Your task to perform on an android device: toggle pop-ups in chrome Image 0: 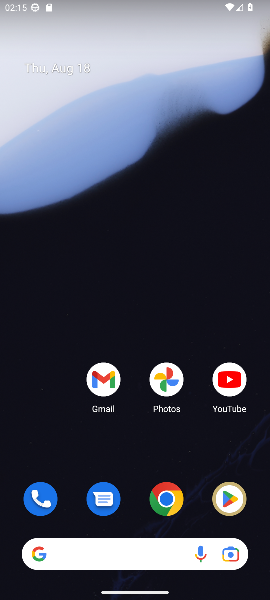
Step 0: click (170, 500)
Your task to perform on an android device: toggle pop-ups in chrome Image 1: 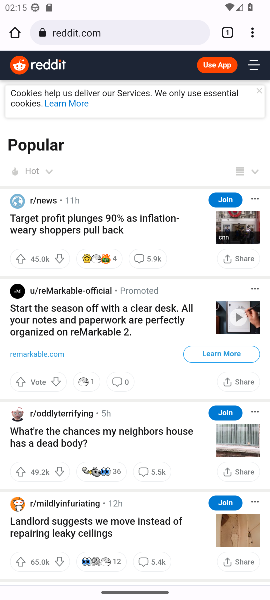
Step 1: click (251, 27)
Your task to perform on an android device: toggle pop-ups in chrome Image 2: 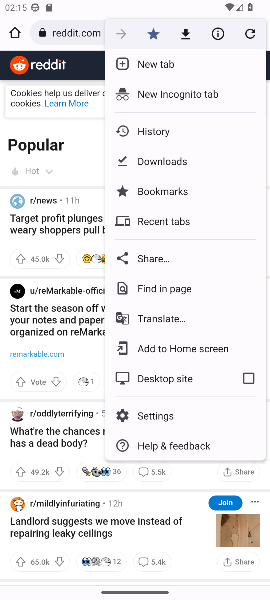
Step 2: click (158, 416)
Your task to perform on an android device: toggle pop-ups in chrome Image 3: 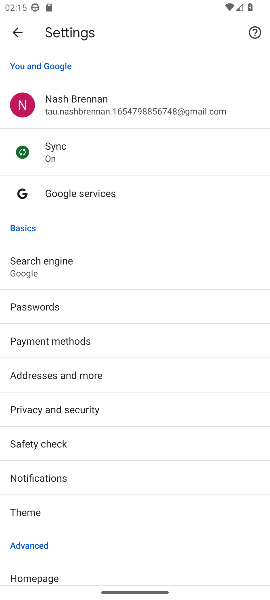
Step 3: drag from (153, 485) to (138, 261)
Your task to perform on an android device: toggle pop-ups in chrome Image 4: 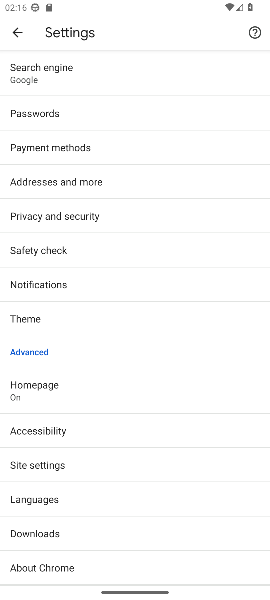
Step 4: click (36, 468)
Your task to perform on an android device: toggle pop-ups in chrome Image 5: 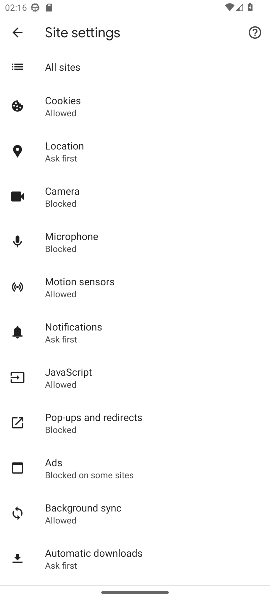
Step 5: click (84, 420)
Your task to perform on an android device: toggle pop-ups in chrome Image 6: 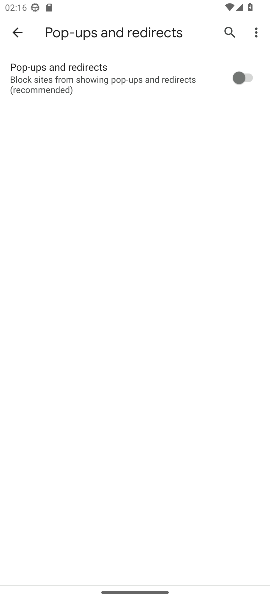
Step 6: click (236, 79)
Your task to perform on an android device: toggle pop-ups in chrome Image 7: 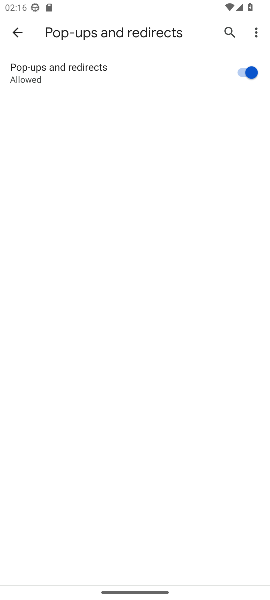
Step 7: task complete